Your task to perform on an android device: turn on the 24-hour format for clock Image 0: 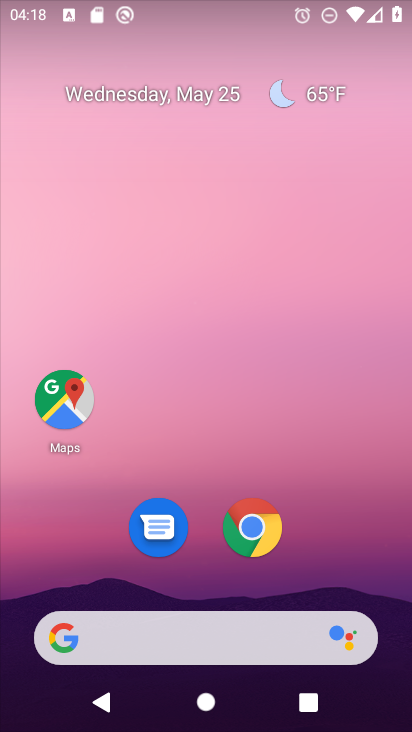
Step 0: drag from (275, 589) to (314, 35)
Your task to perform on an android device: turn on the 24-hour format for clock Image 1: 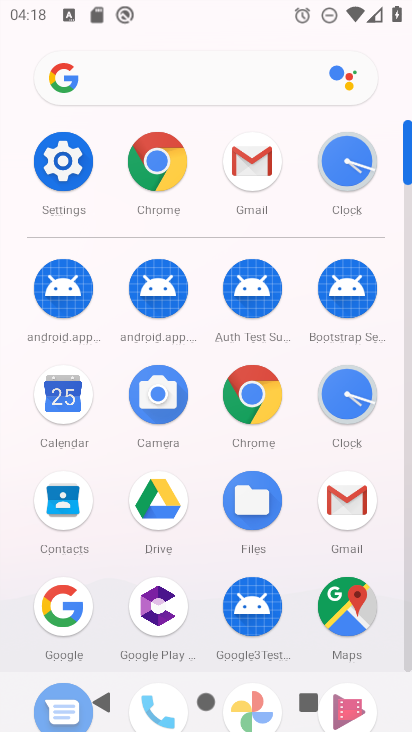
Step 1: click (359, 387)
Your task to perform on an android device: turn on the 24-hour format for clock Image 2: 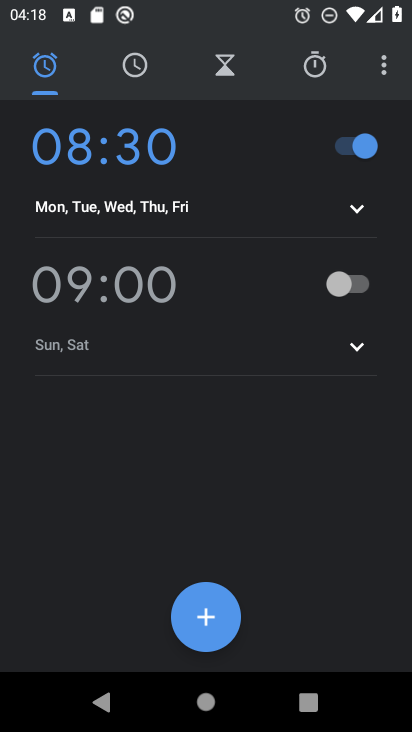
Step 2: click (386, 76)
Your task to perform on an android device: turn on the 24-hour format for clock Image 3: 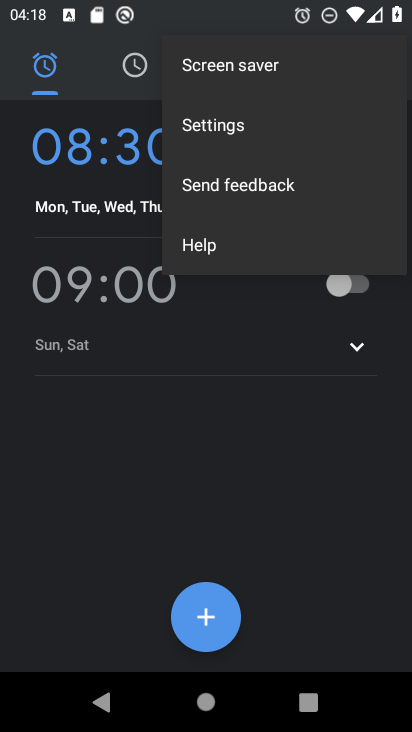
Step 3: click (280, 131)
Your task to perform on an android device: turn on the 24-hour format for clock Image 4: 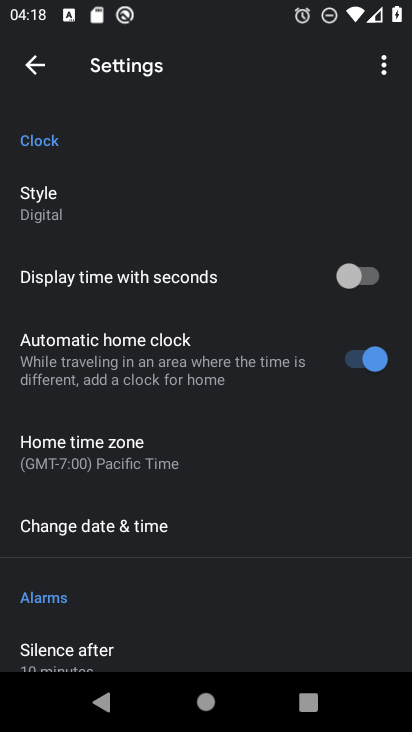
Step 4: drag from (265, 602) to (268, 286)
Your task to perform on an android device: turn on the 24-hour format for clock Image 5: 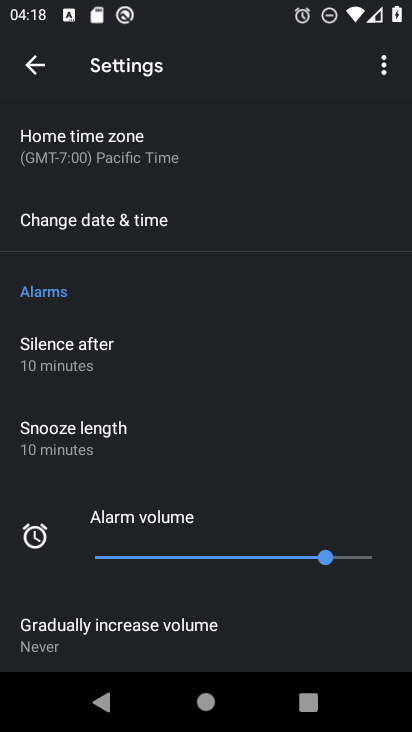
Step 5: click (198, 238)
Your task to perform on an android device: turn on the 24-hour format for clock Image 6: 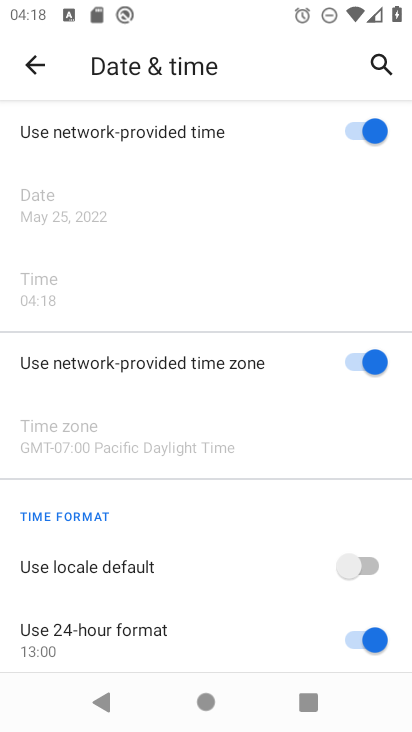
Step 6: task complete